Your task to perform on an android device: Open settings Image 0: 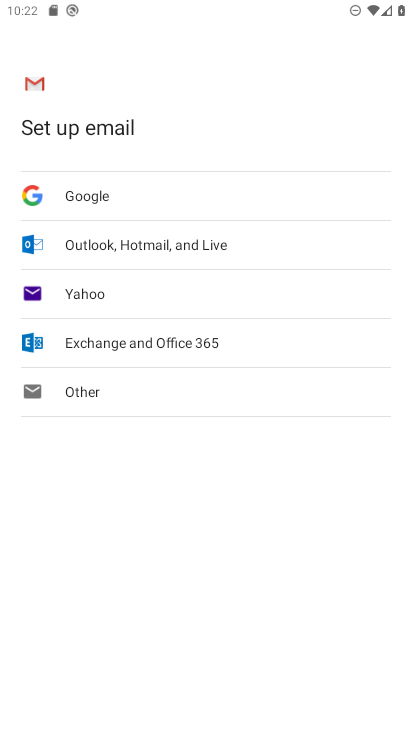
Step 0: press home button
Your task to perform on an android device: Open settings Image 1: 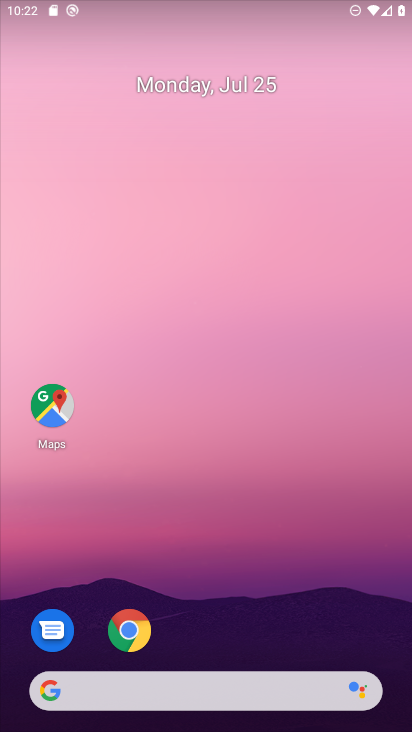
Step 1: drag from (235, 625) to (114, 48)
Your task to perform on an android device: Open settings Image 2: 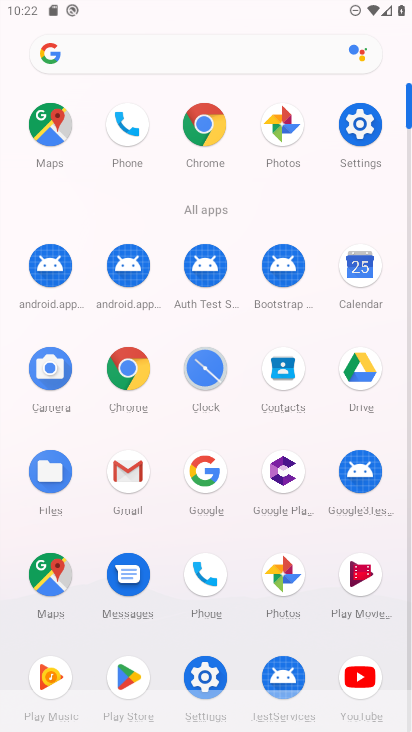
Step 2: click (369, 125)
Your task to perform on an android device: Open settings Image 3: 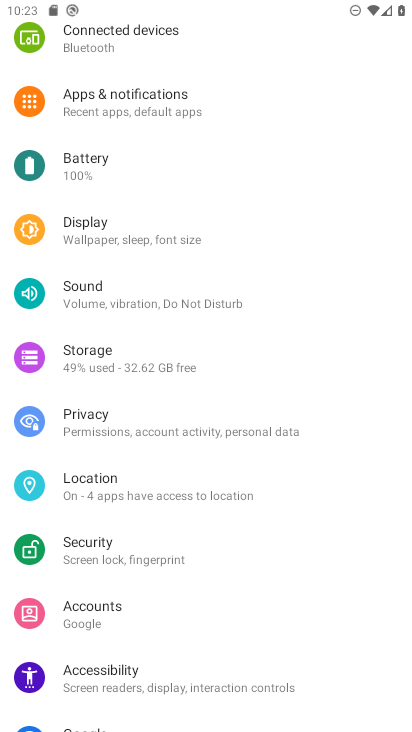
Step 3: task complete